Your task to perform on an android device: set the stopwatch Image 0: 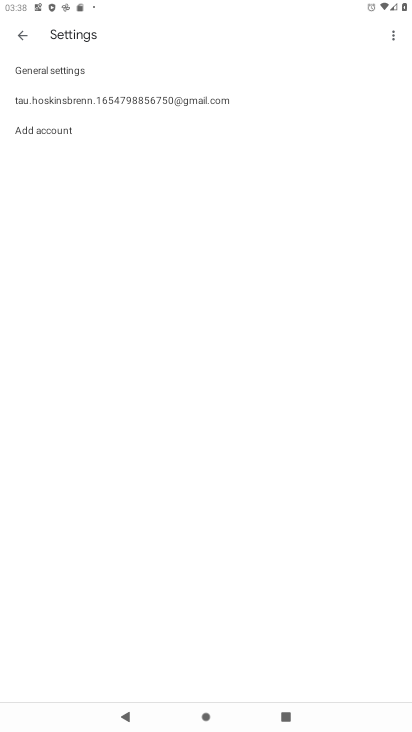
Step 0: press home button
Your task to perform on an android device: set the stopwatch Image 1: 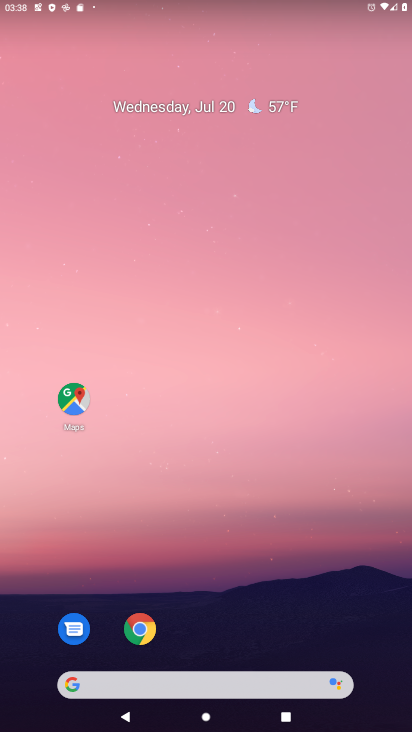
Step 1: drag from (361, 627) to (315, 105)
Your task to perform on an android device: set the stopwatch Image 2: 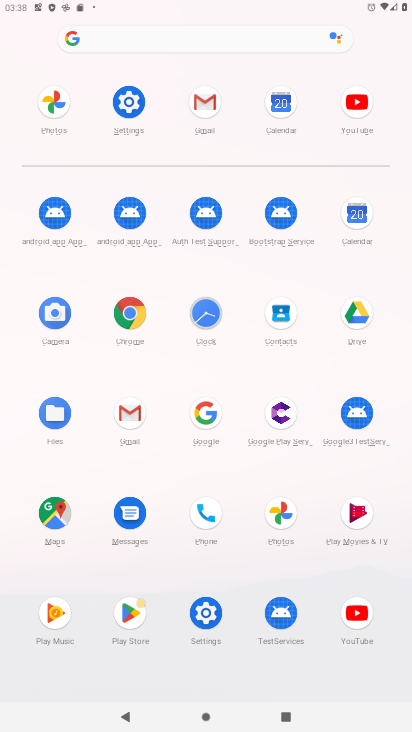
Step 2: click (205, 314)
Your task to perform on an android device: set the stopwatch Image 3: 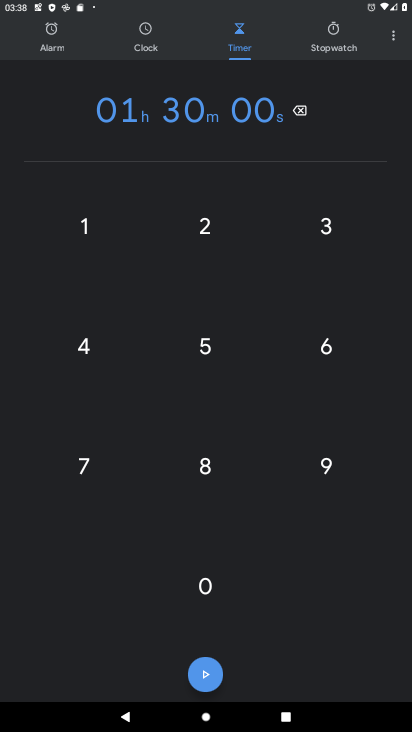
Step 3: click (333, 43)
Your task to perform on an android device: set the stopwatch Image 4: 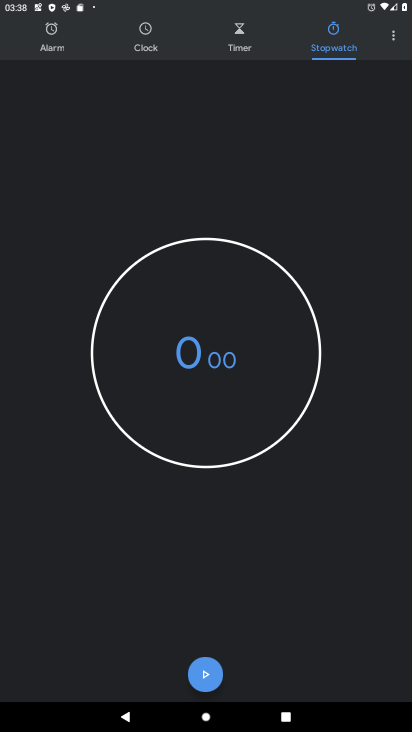
Step 4: task complete